Your task to perform on an android device: turn off sleep mode Image 0: 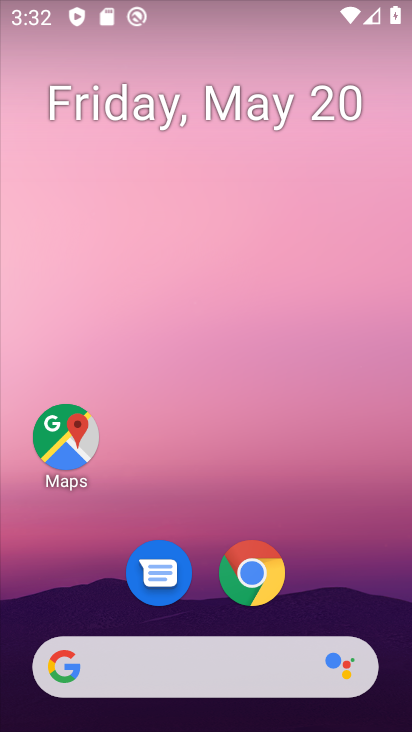
Step 0: drag from (383, 562) to (367, 251)
Your task to perform on an android device: turn off sleep mode Image 1: 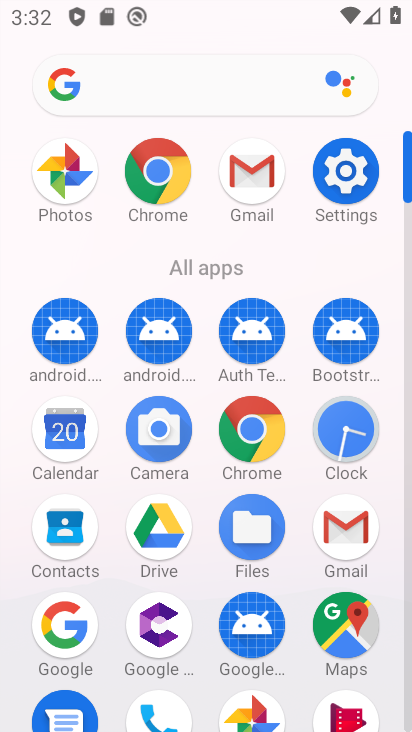
Step 1: click (353, 190)
Your task to perform on an android device: turn off sleep mode Image 2: 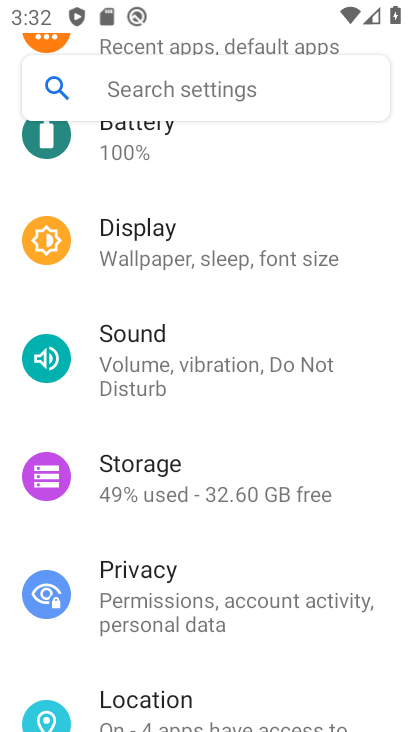
Step 2: click (220, 109)
Your task to perform on an android device: turn off sleep mode Image 3: 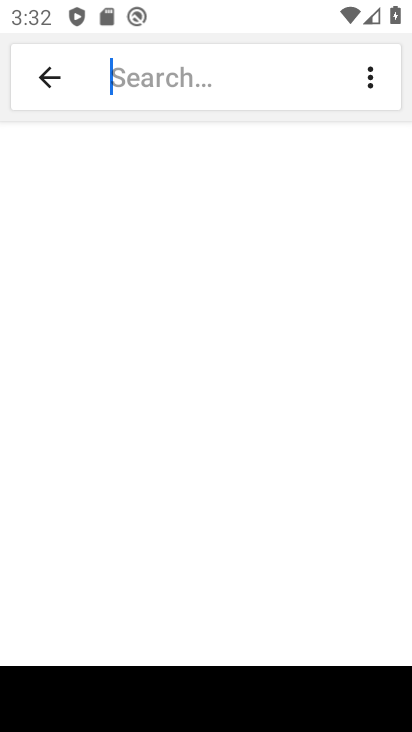
Step 3: type "sleep mode"
Your task to perform on an android device: turn off sleep mode Image 4: 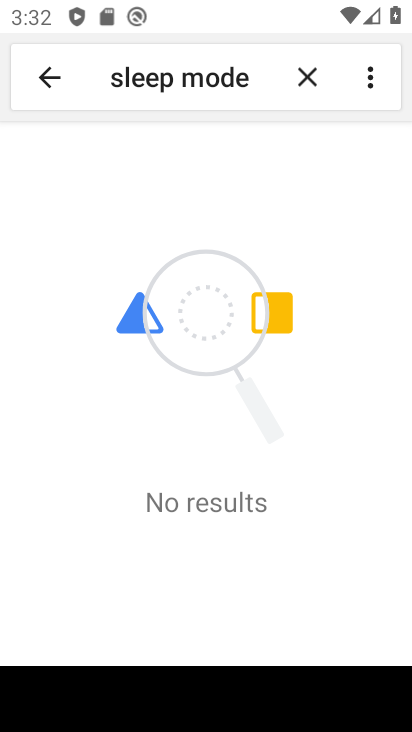
Step 4: task complete